Your task to perform on an android device: turn off priority inbox in the gmail app Image 0: 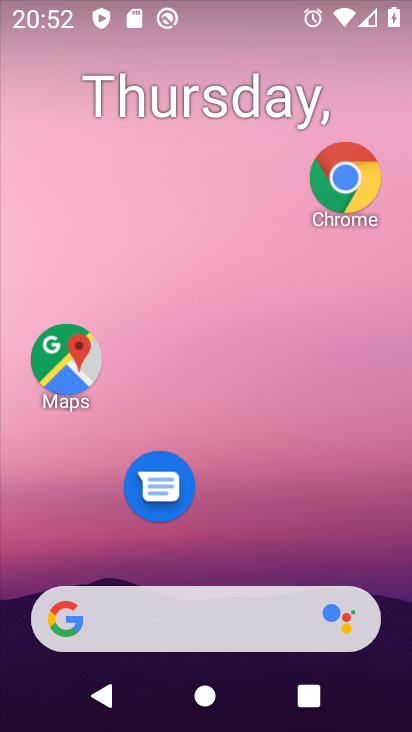
Step 0: drag from (253, 573) to (379, 20)
Your task to perform on an android device: turn off priority inbox in the gmail app Image 1: 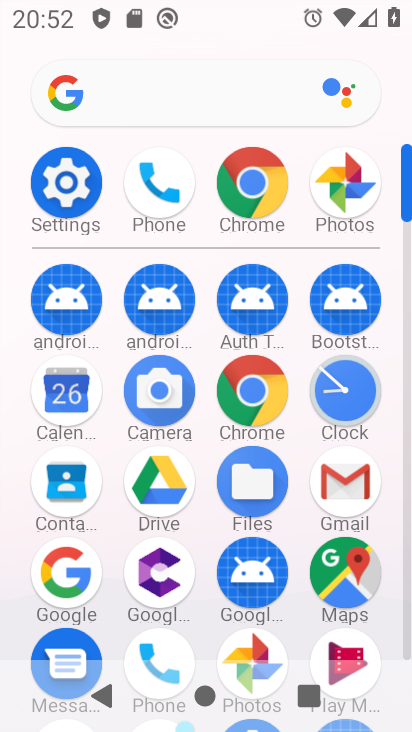
Step 1: click (342, 499)
Your task to perform on an android device: turn off priority inbox in the gmail app Image 2: 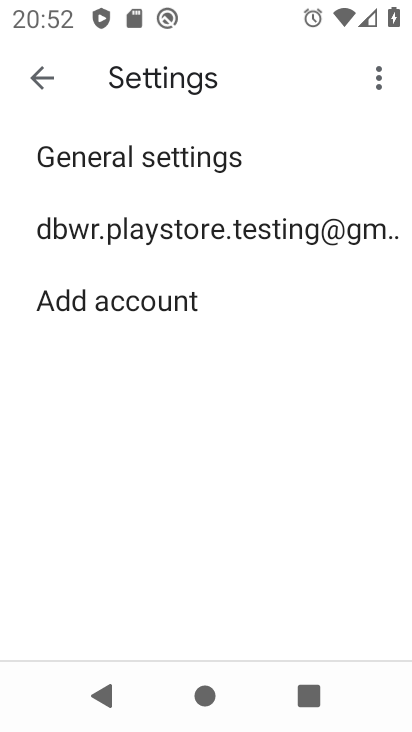
Step 2: click (93, 227)
Your task to perform on an android device: turn off priority inbox in the gmail app Image 3: 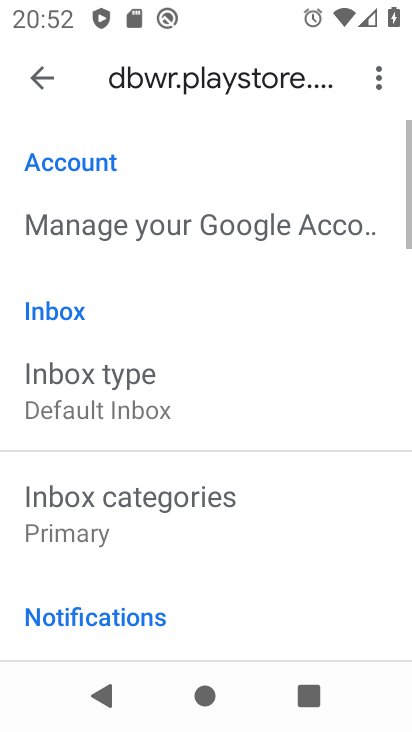
Step 3: drag from (125, 553) to (157, 497)
Your task to perform on an android device: turn off priority inbox in the gmail app Image 4: 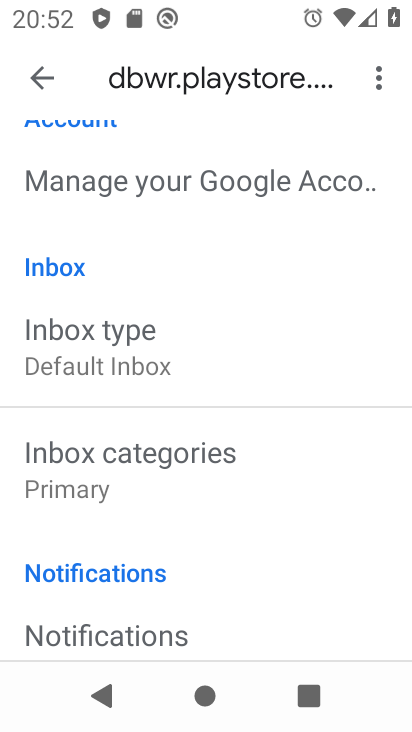
Step 4: click (118, 343)
Your task to perform on an android device: turn off priority inbox in the gmail app Image 5: 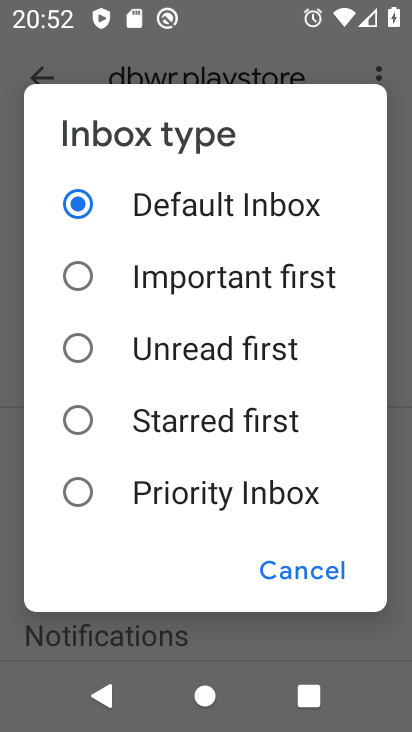
Step 5: task complete